Your task to perform on an android device: Search for vegetarian restaurants on Maps Image 0: 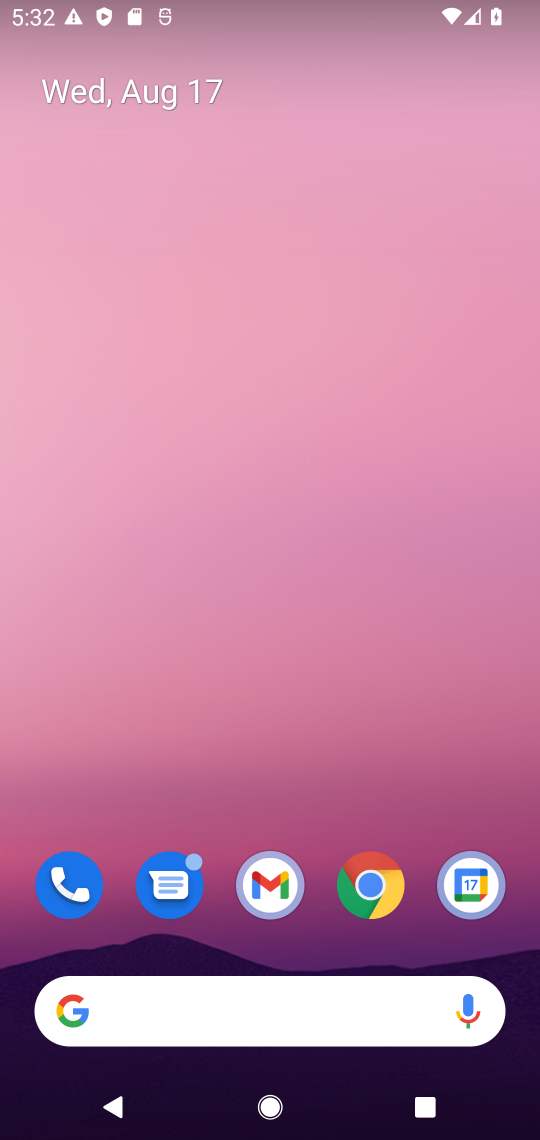
Step 0: drag from (266, 778) to (477, 134)
Your task to perform on an android device: Search for vegetarian restaurants on Maps Image 1: 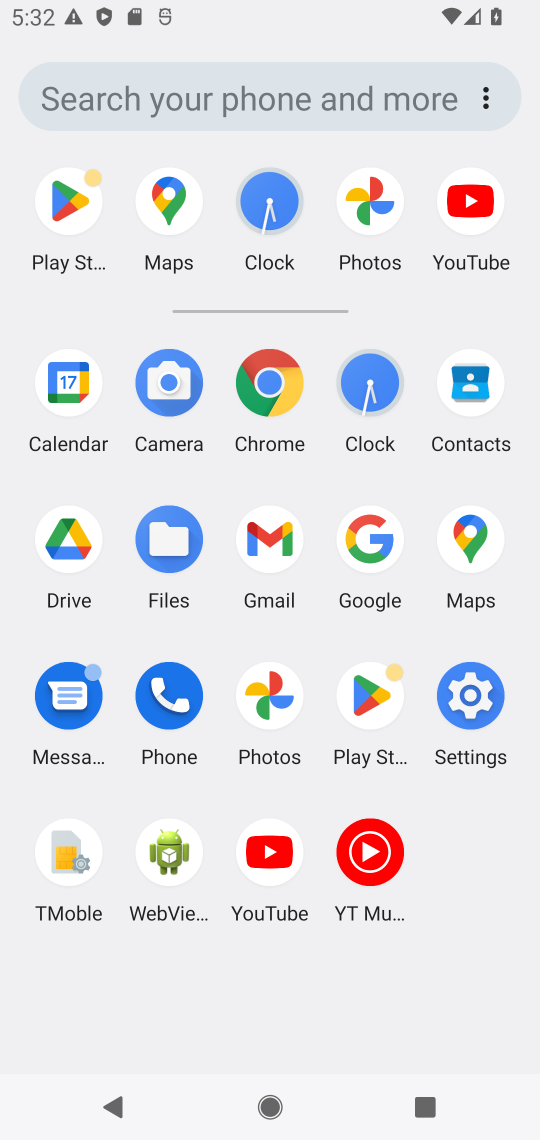
Step 1: click (473, 531)
Your task to perform on an android device: Search for vegetarian restaurants on Maps Image 2: 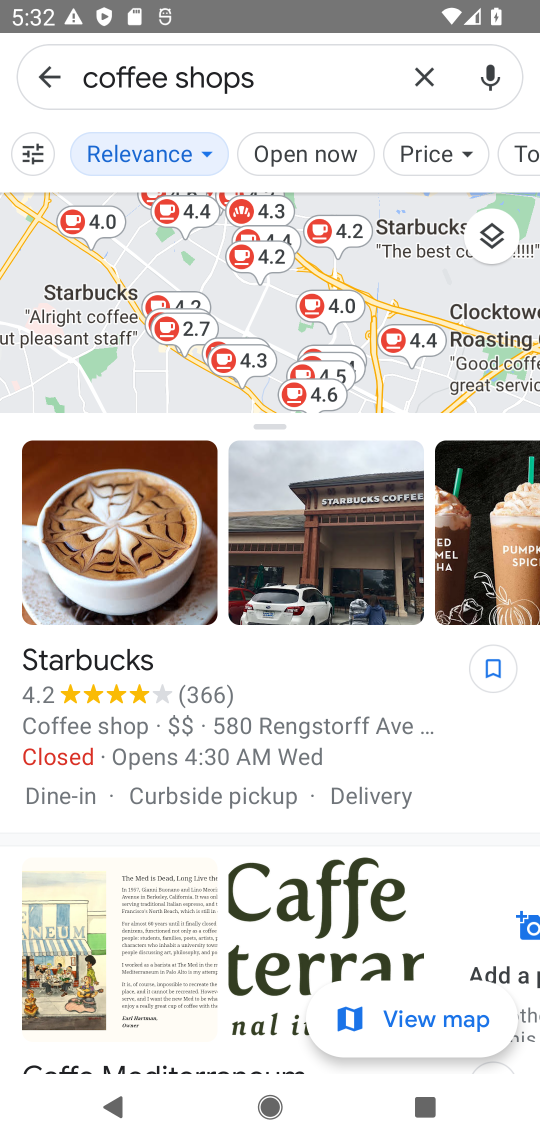
Step 2: click (426, 64)
Your task to perform on an android device: Search for vegetarian restaurants on Maps Image 3: 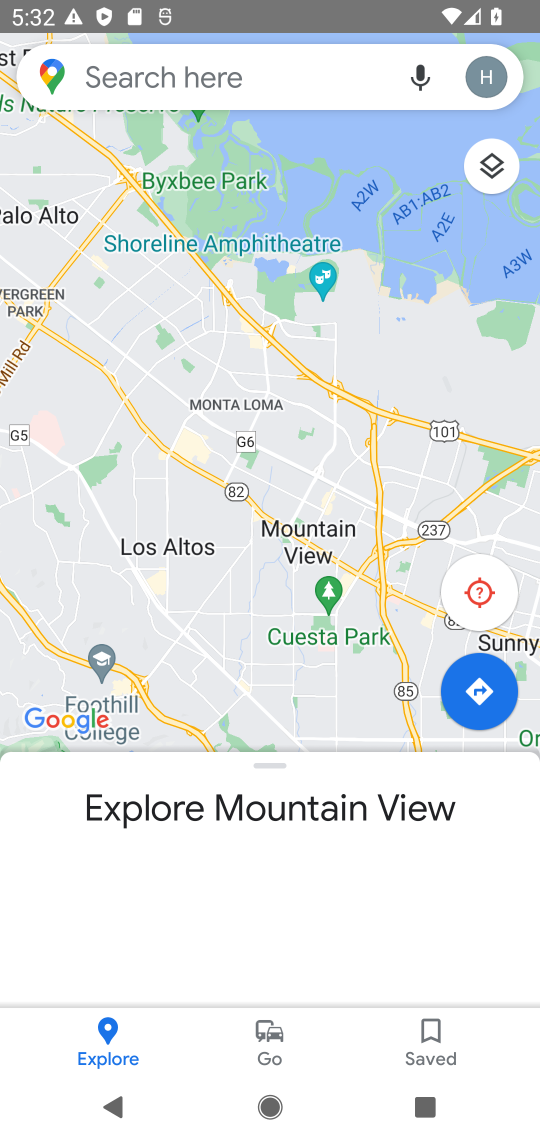
Step 3: click (330, 86)
Your task to perform on an android device: Search for vegetarian restaurants on Maps Image 4: 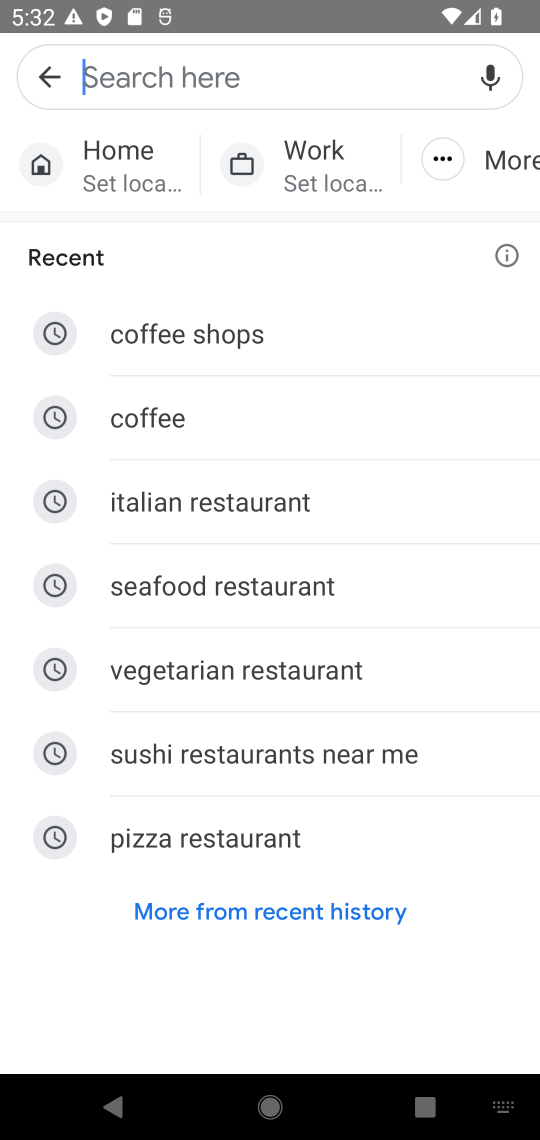
Step 4: type "vegetarian restaurants"
Your task to perform on an android device: Search for vegetarian restaurants on Maps Image 5: 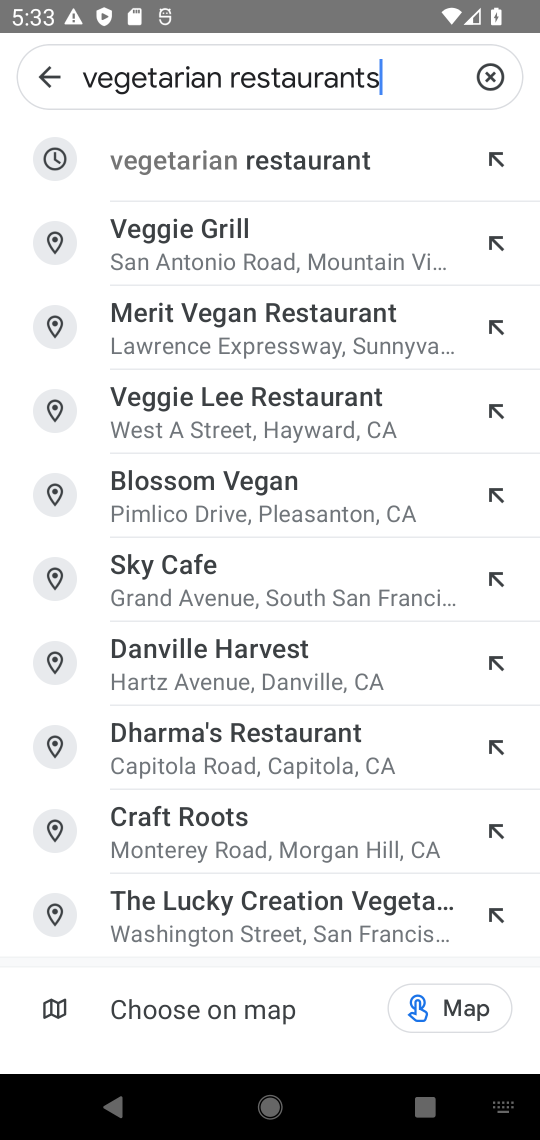
Step 5: press enter
Your task to perform on an android device: Search for vegetarian restaurants on Maps Image 6: 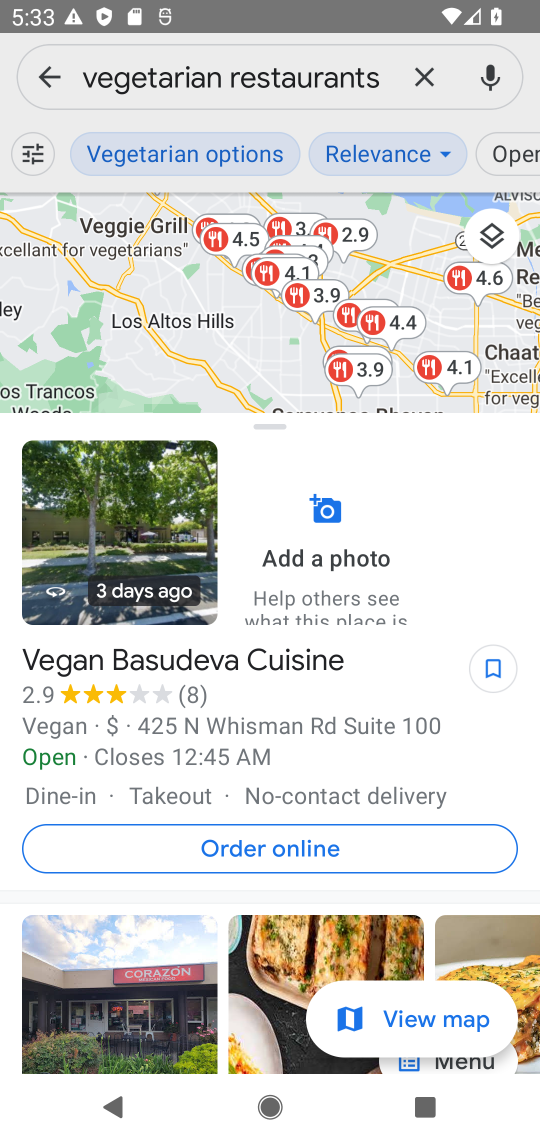
Step 6: task complete